Your task to perform on an android device: turn on translation in the chrome app Image 0: 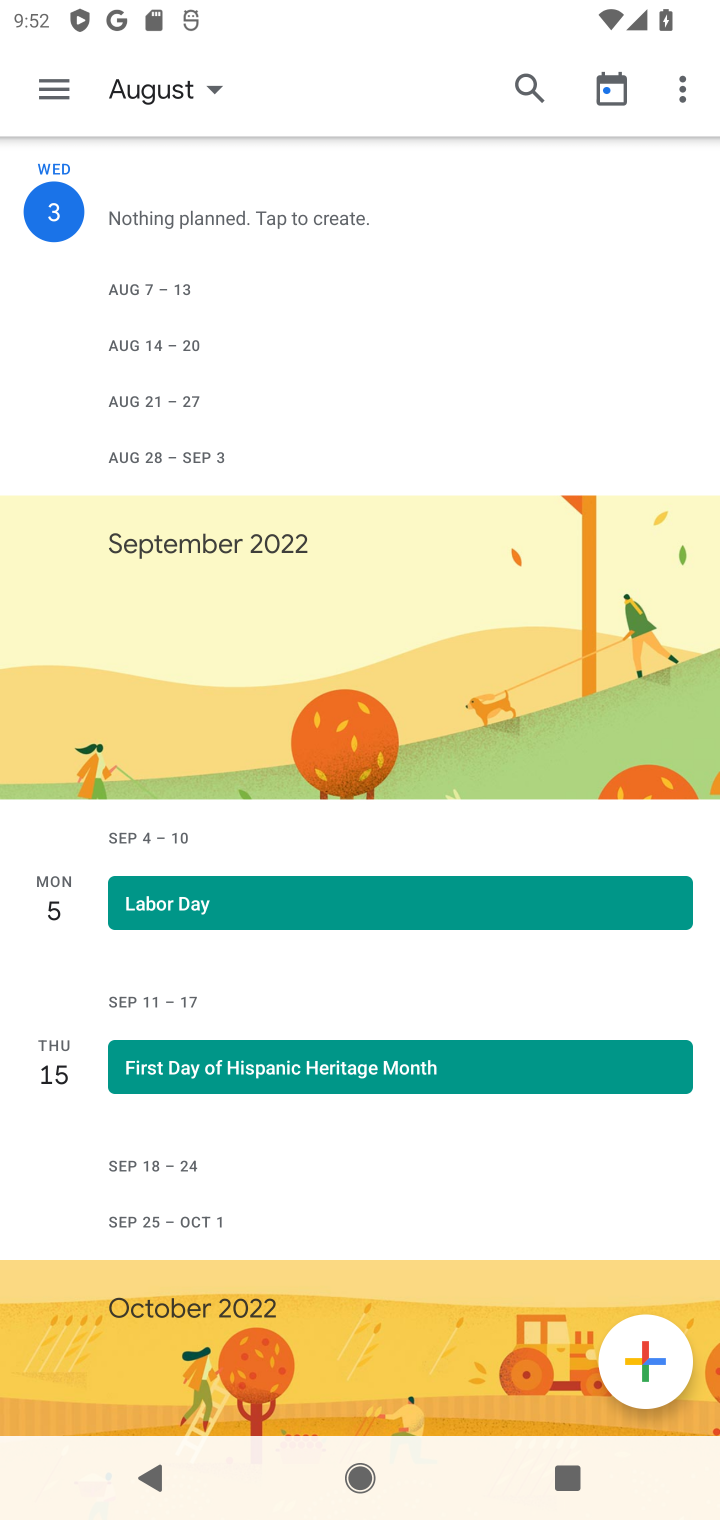
Step 0: press back button
Your task to perform on an android device: turn on translation in the chrome app Image 1: 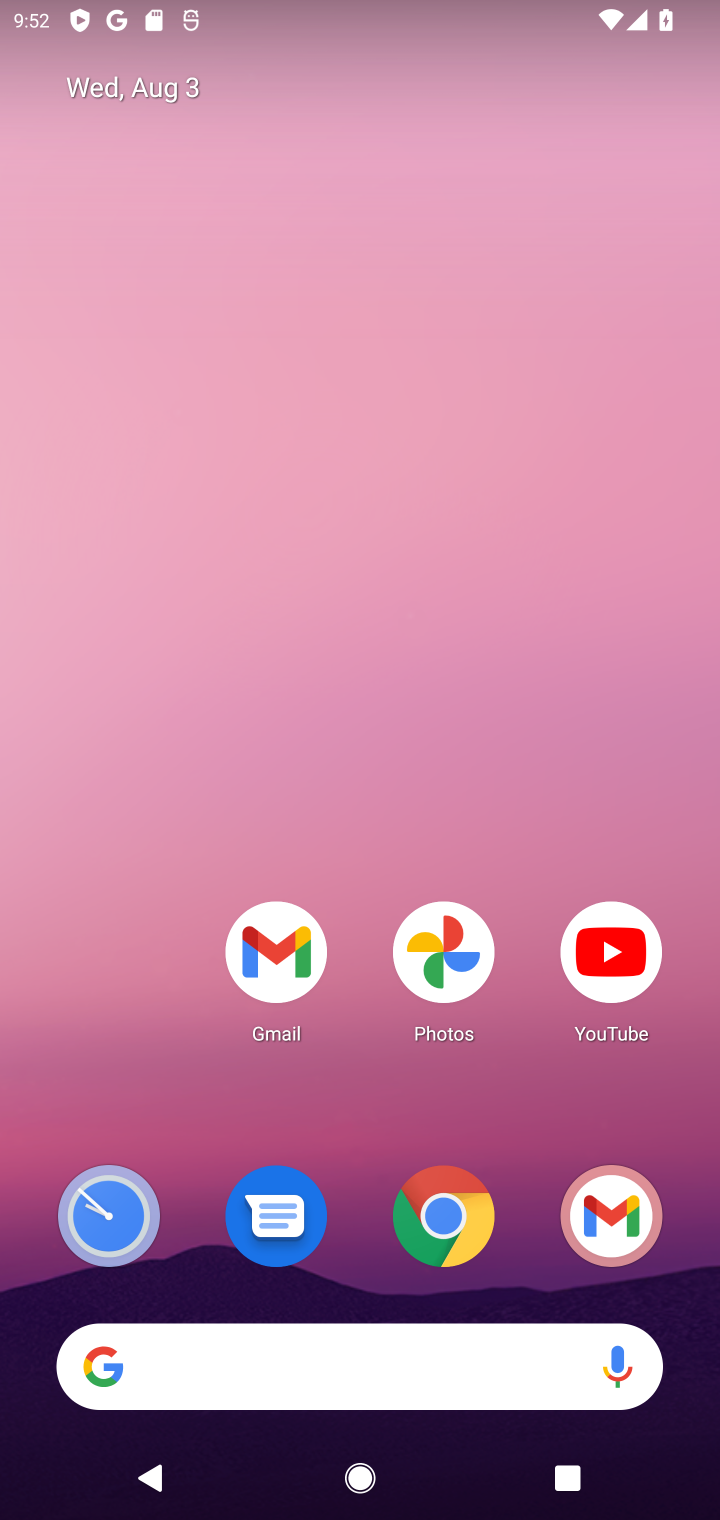
Step 1: click (451, 1208)
Your task to perform on an android device: turn on translation in the chrome app Image 2: 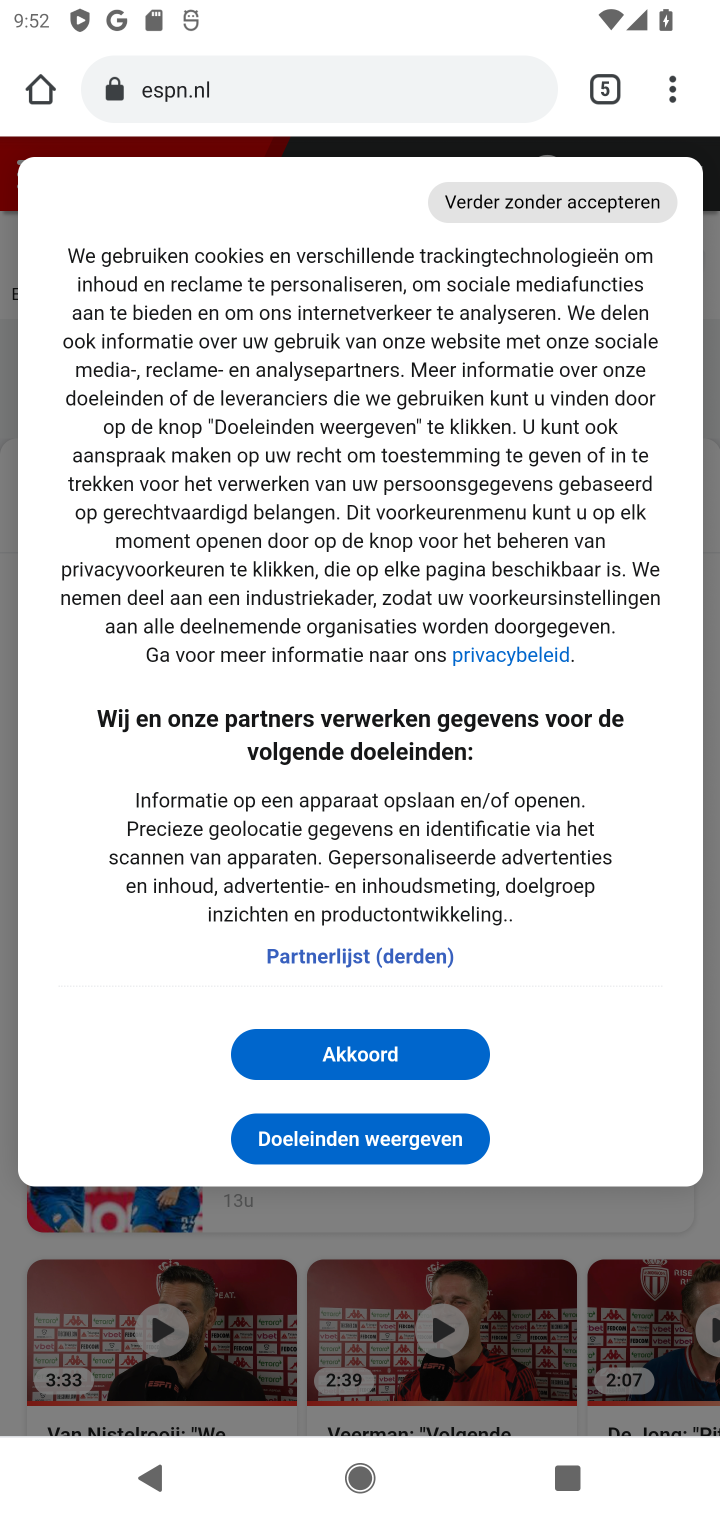
Step 2: drag from (666, 79) to (416, 1117)
Your task to perform on an android device: turn on translation in the chrome app Image 3: 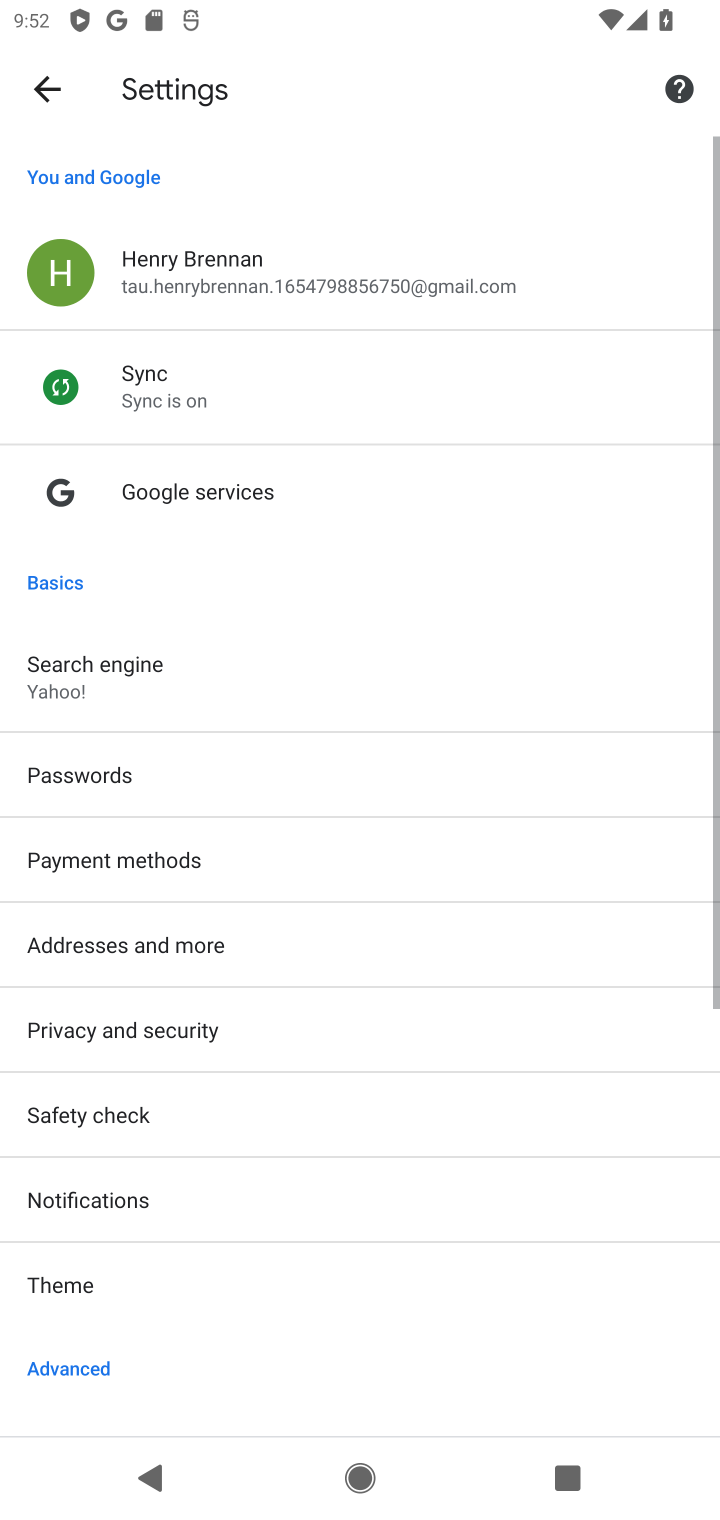
Step 3: drag from (234, 1152) to (289, 261)
Your task to perform on an android device: turn on translation in the chrome app Image 4: 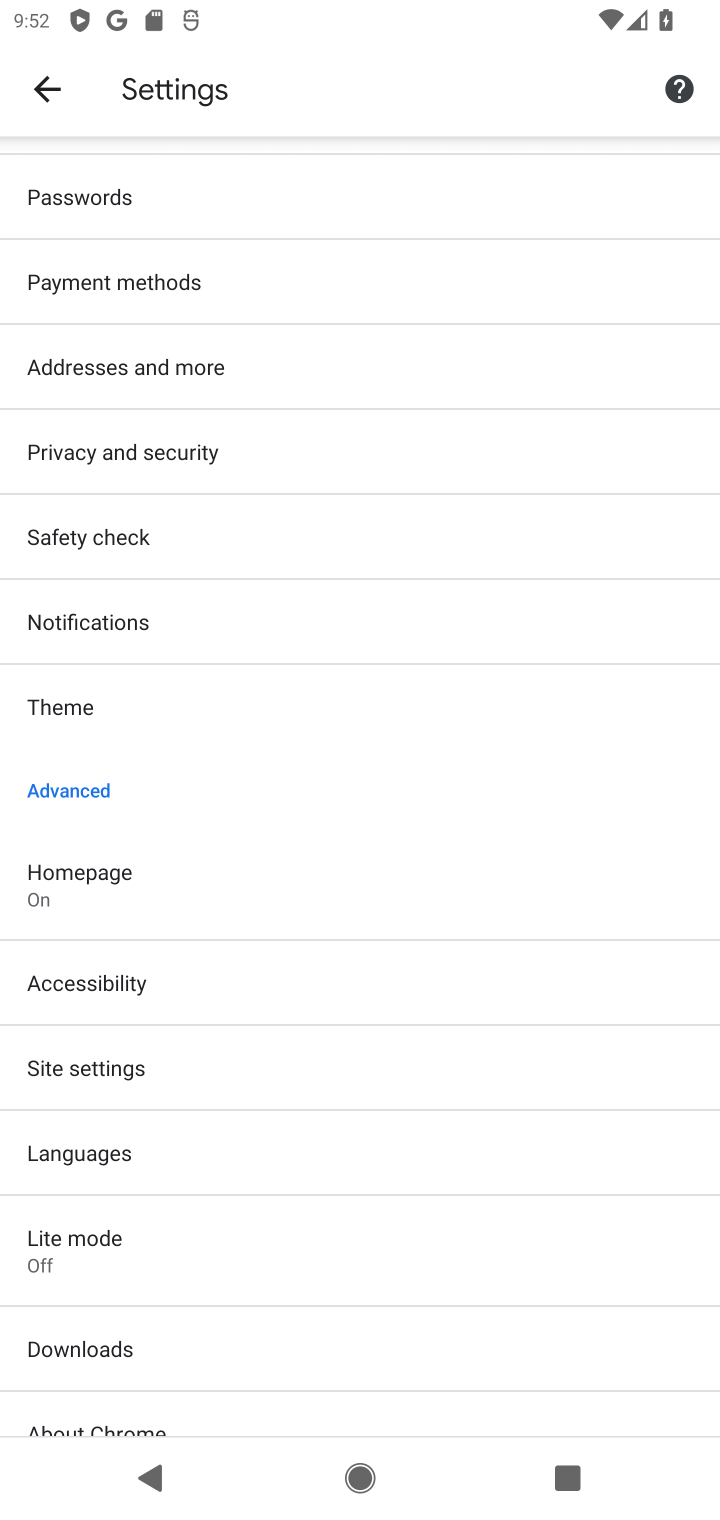
Step 4: click (133, 1150)
Your task to perform on an android device: turn on translation in the chrome app Image 5: 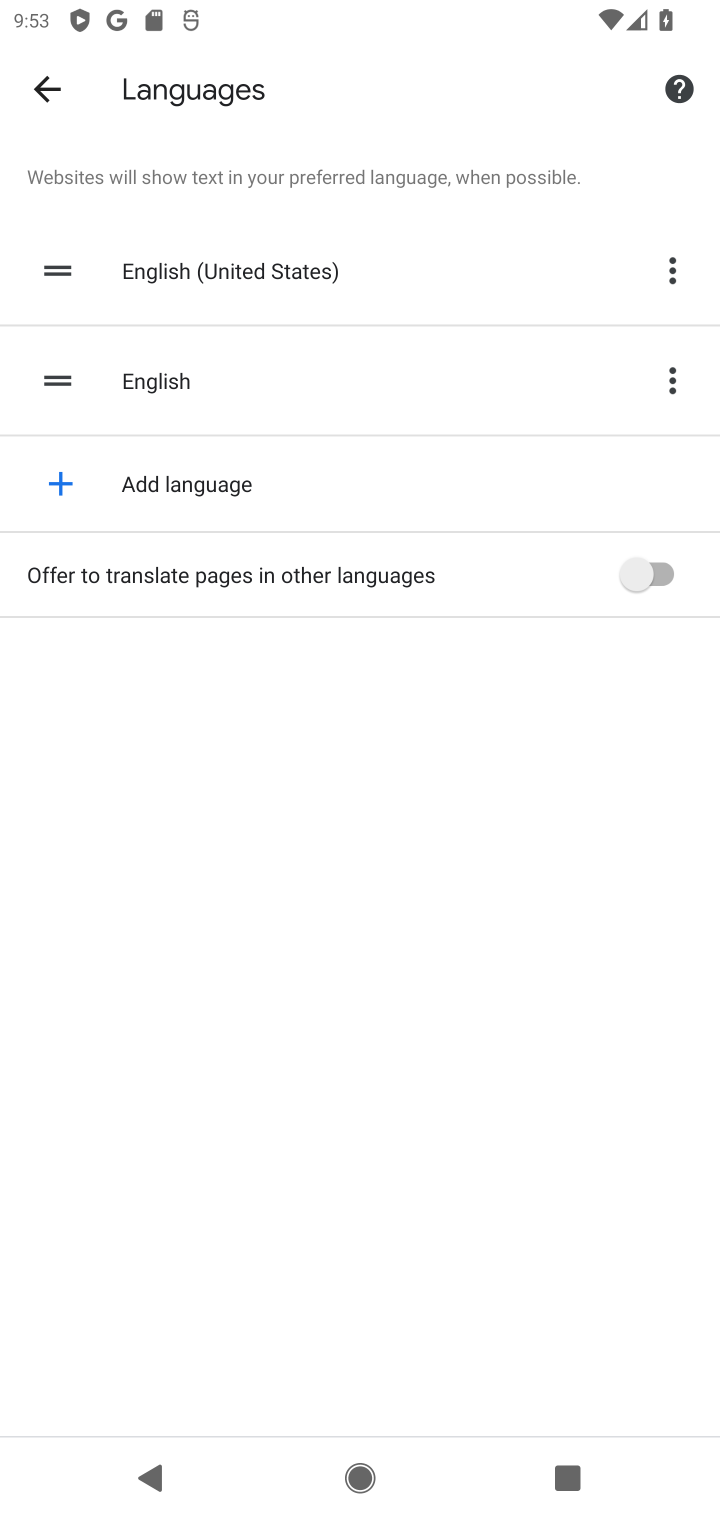
Step 5: click (637, 576)
Your task to perform on an android device: turn on translation in the chrome app Image 6: 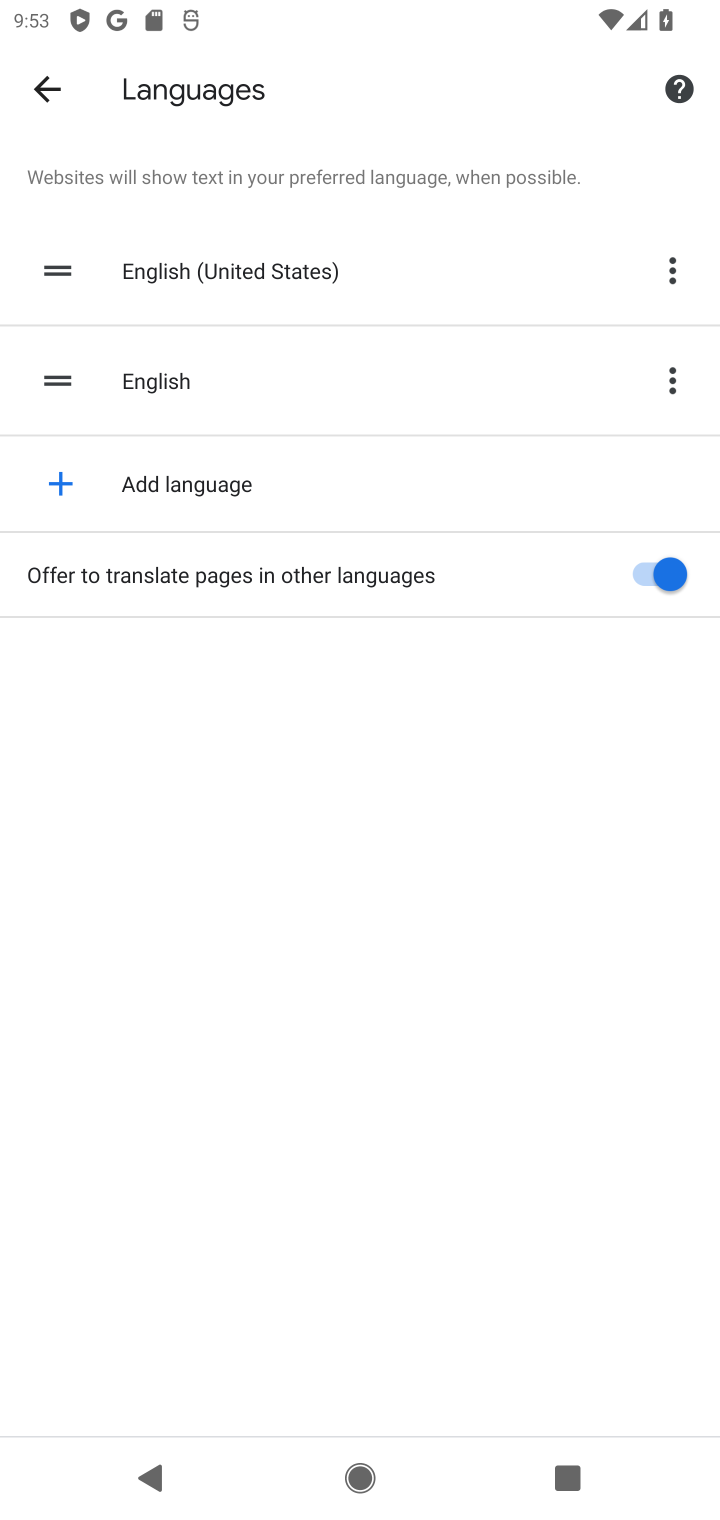
Step 6: task complete